Your task to perform on an android device: Open the phone app and click the voicemail tab. Image 0: 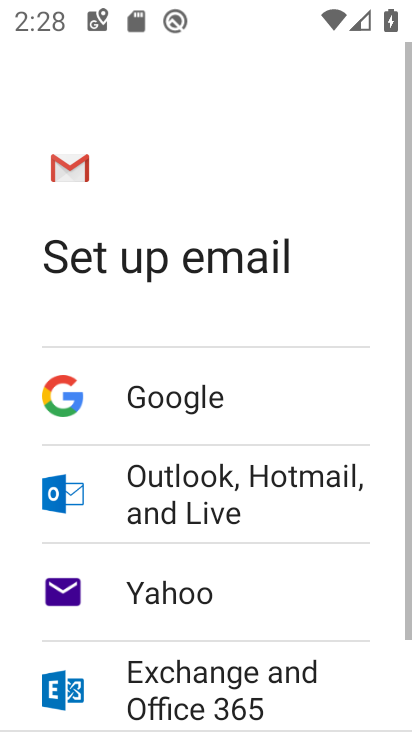
Step 0: press home button
Your task to perform on an android device: Open the phone app and click the voicemail tab. Image 1: 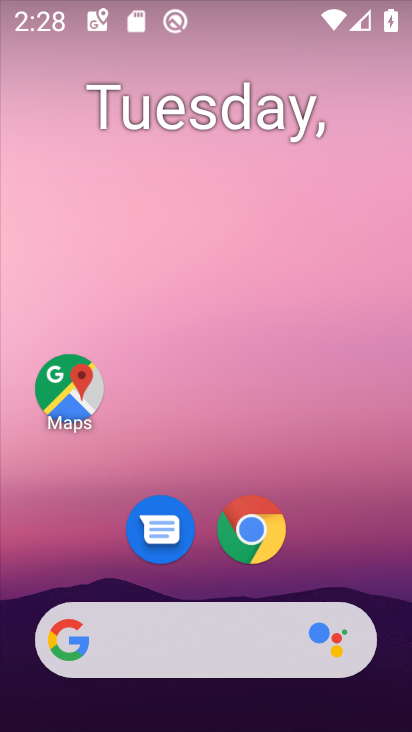
Step 1: drag from (359, 614) to (326, 301)
Your task to perform on an android device: Open the phone app and click the voicemail tab. Image 2: 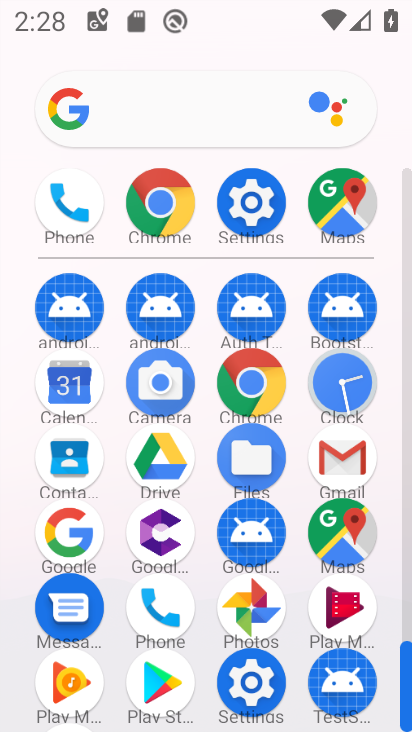
Step 2: click (148, 601)
Your task to perform on an android device: Open the phone app and click the voicemail tab. Image 3: 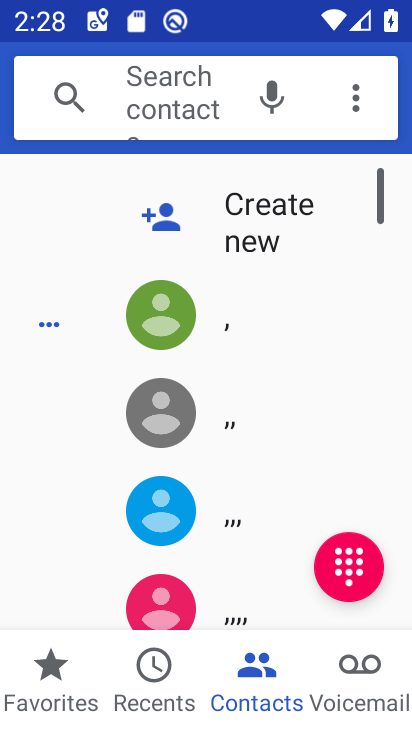
Step 3: click (357, 679)
Your task to perform on an android device: Open the phone app and click the voicemail tab. Image 4: 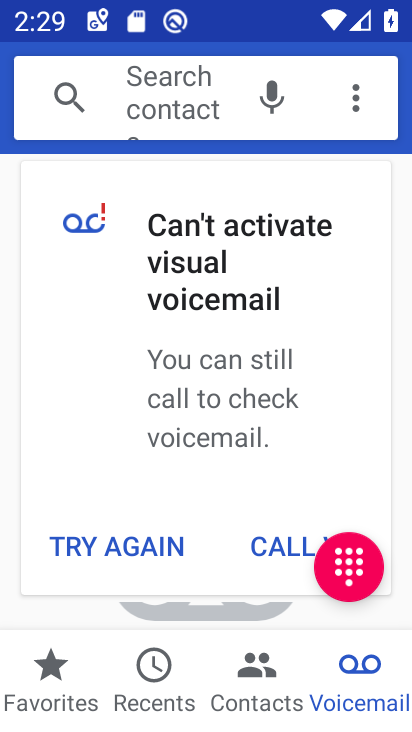
Step 4: task complete